Your task to perform on an android device: check out phone information Image 0: 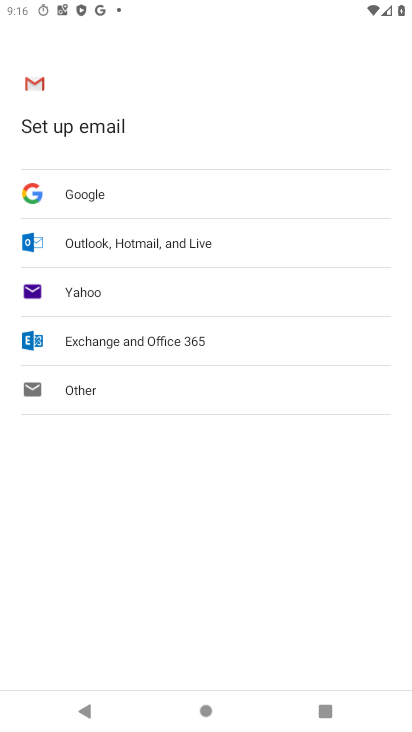
Step 0: press home button
Your task to perform on an android device: check out phone information Image 1: 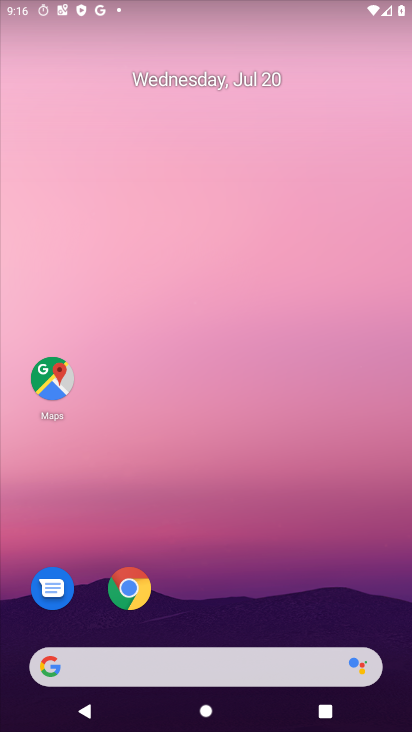
Step 1: drag from (162, 665) to (174, 52)
Your task to perform on an android device: check out phone information Image 2: 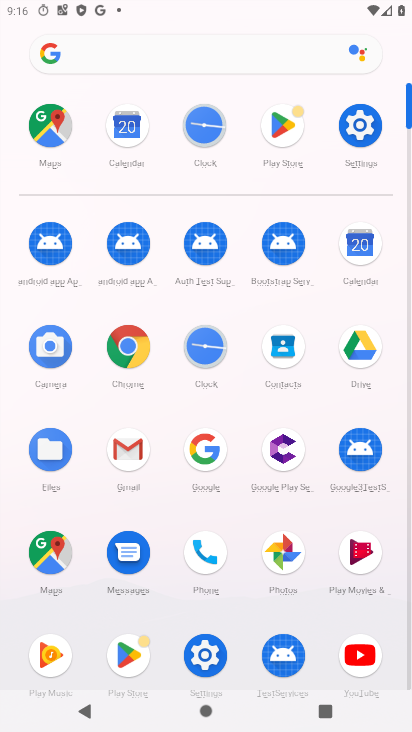
Step 2: click (370, 130)
Your task to perform on an android device: check out phone information Image 3: 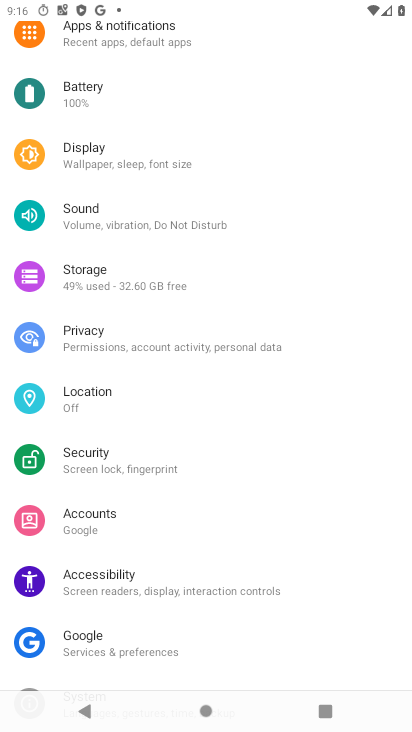
Step 3: drag from (83, 609) to (108, 116)
Your task to perform on an android device: check out phone information Image 4: 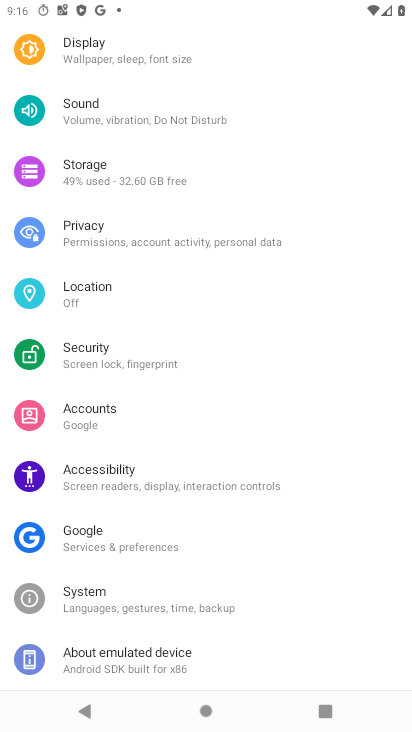
Step 4: click (145, 653)
Your task to perform on an android device: check out phone information Image 5: 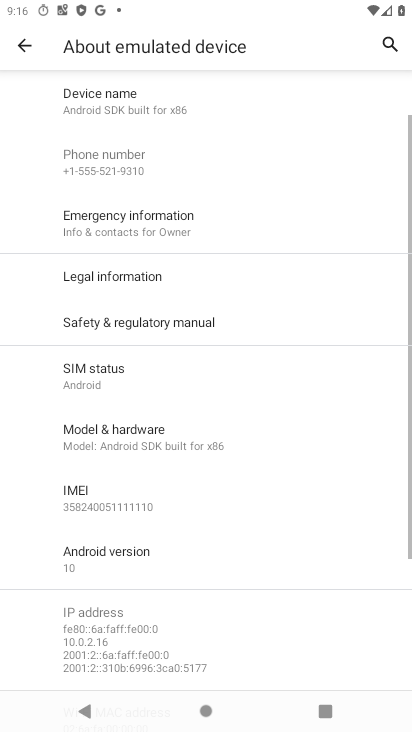
Step 5: task complete